Your task to perform on an android device: change keyboard looks Image 0: 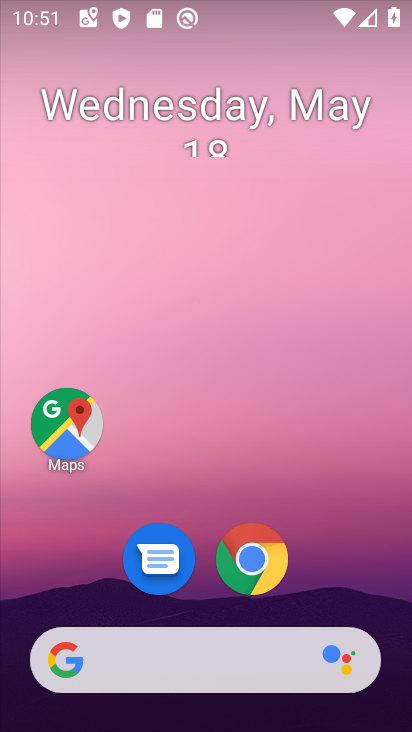
Step 0: drag from (200, 549) to (267, 85)
Your task to perform on an android device: change keyboard looks Image 1: 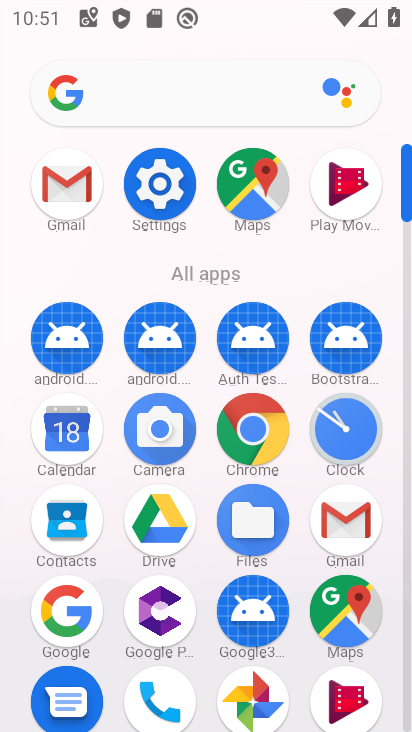
Step 1: click (157, 199)
Your task to perform on an android device: change keyboard looks Image 2: 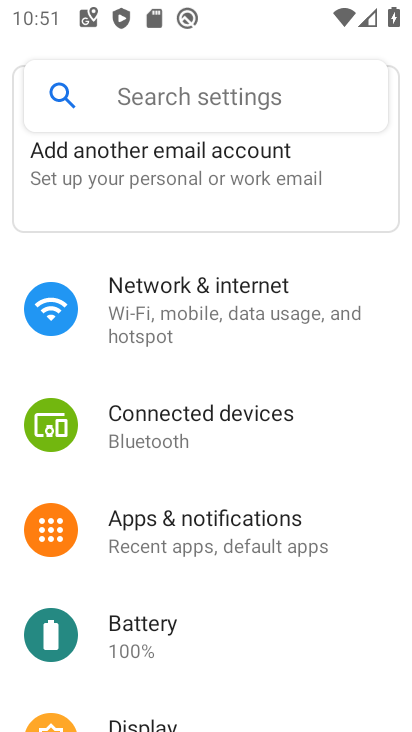
Step 2: drag from (219, 585) to (306, 180)
Your task to perform on an android device: change keyboard looks Image 3: 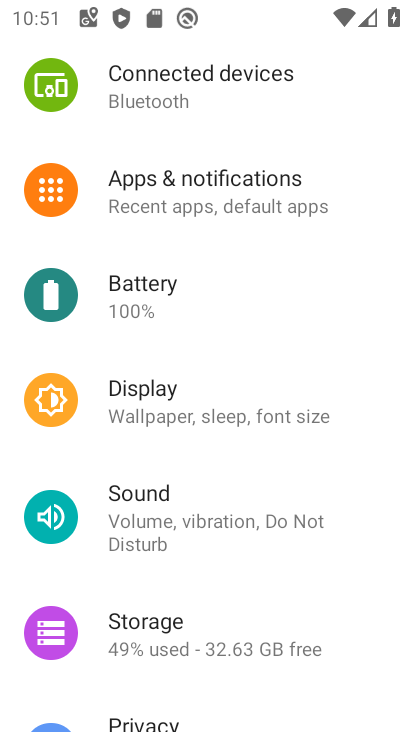
Step 3: drag from (204, 628) to (313, 80)
Your task to perform on an android device: change keyboard looks Image 4: 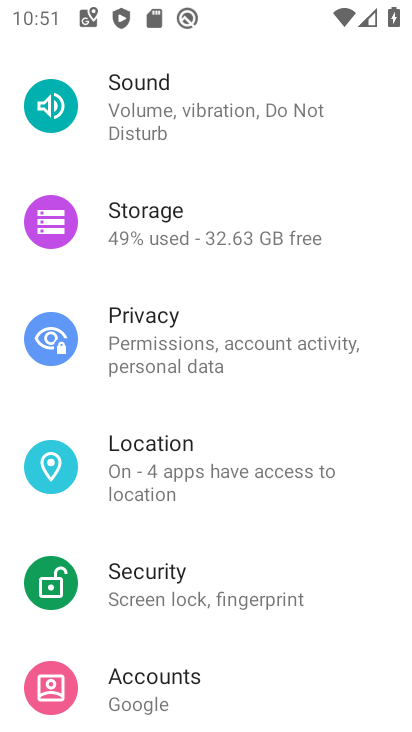
Step 4: drag from (191, 632) to (341, 5)
Your task to perform on an android device: change keyboard looks Image 5: 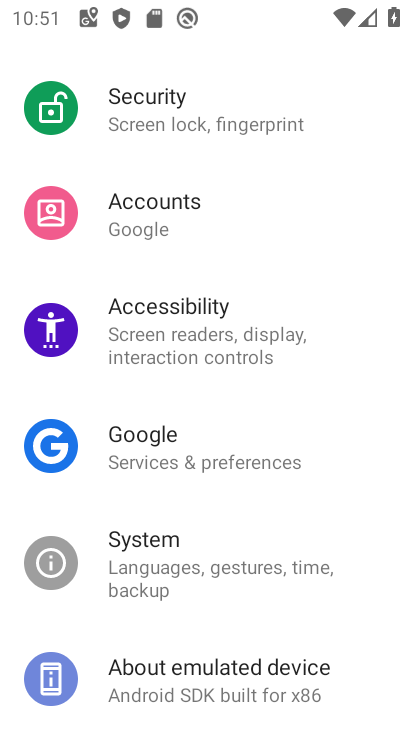
Step 5: click (173, 569)
Your task to perform on an android device: change keyboard looks Image 6: 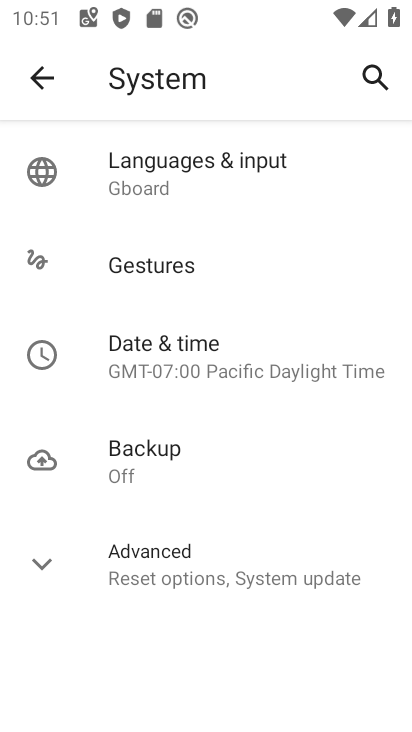
Step 6: click (136, 163)
Your task to perform on an android device: change keyboard looks Image 7: 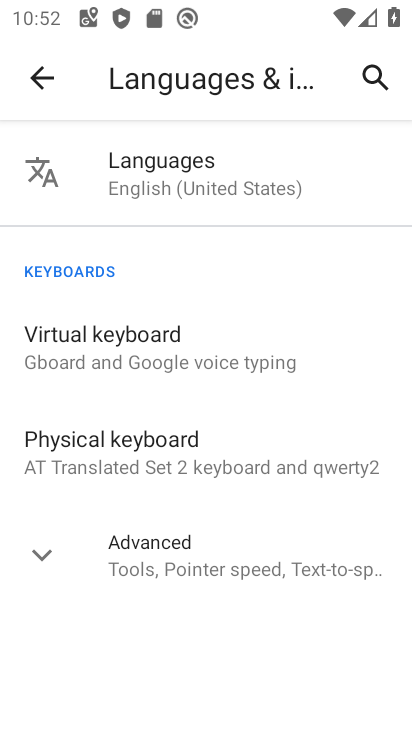
Step 7: click (188, 177)
Your task to perform on an android device: change keyboard looks Image 8: 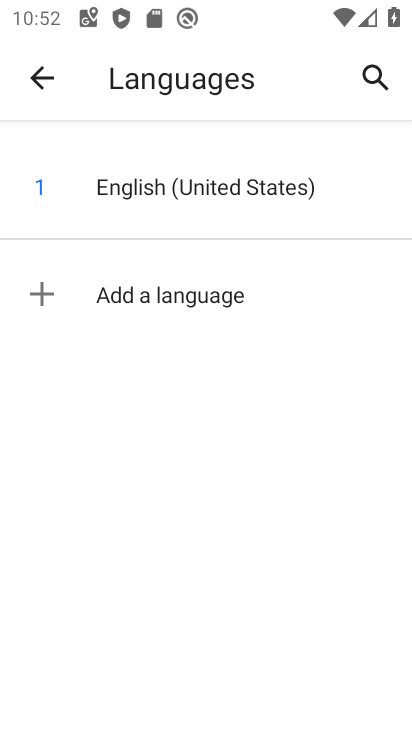
Step 8: click (49, 74)
Your task to perform on an android device: change keyboard looks Image 9: 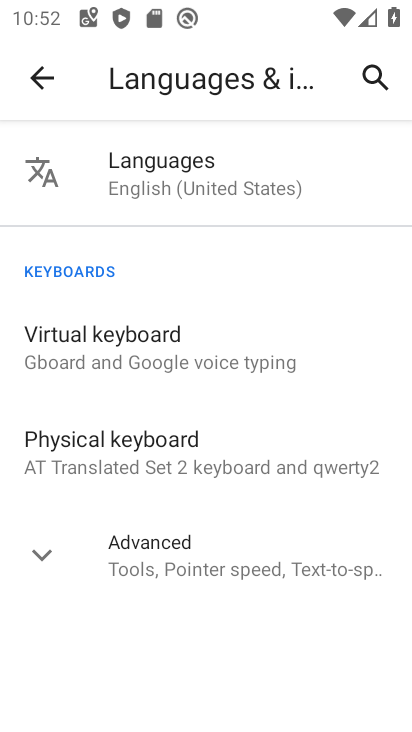
Step 9: click (147, 348)
Your task to perform on an android device: change keyboard looks Image 10: 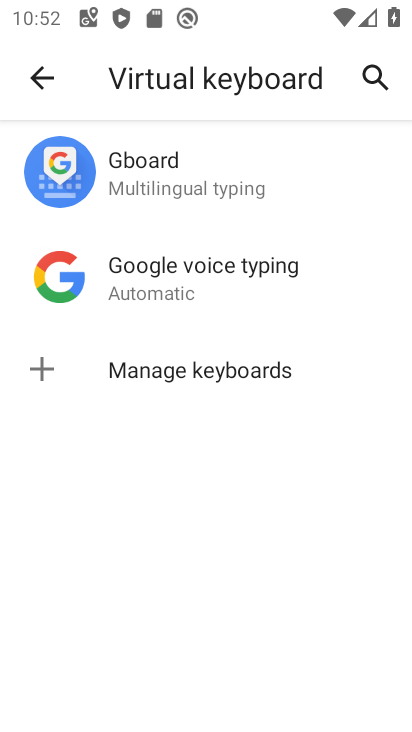
Step 10: click (150, 162)
Your task to perform on an android device: change keyboard looks Image 11: 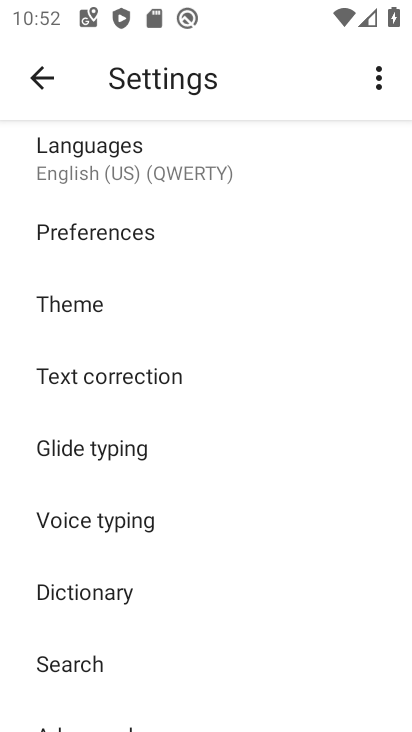
Step 11: click (110, 299)
Your task to perform on an android device: change keyboard looks Image 12: 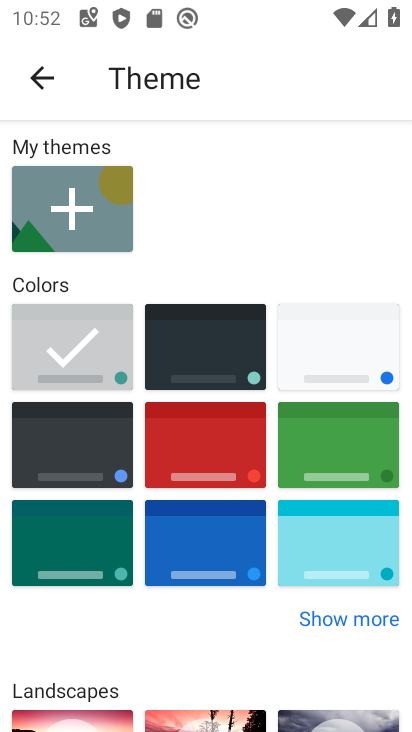
Step 12: click (194, 437)
Your task to perform on an android device: change keyboard looks Image 13: 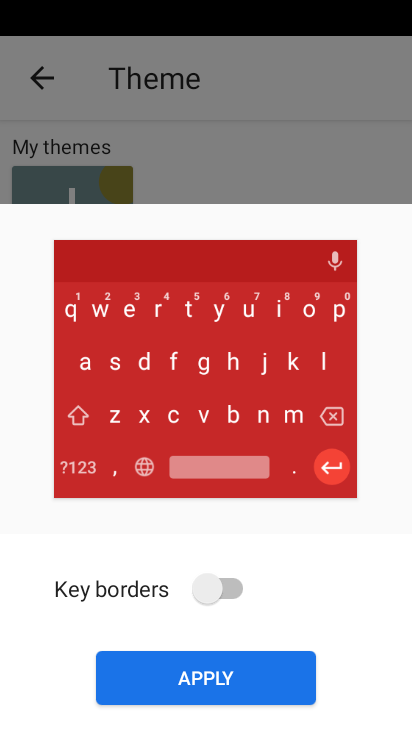
Step 13: click (214, 679)
Your task to perform on an android device: change keyboard looks Image 14: 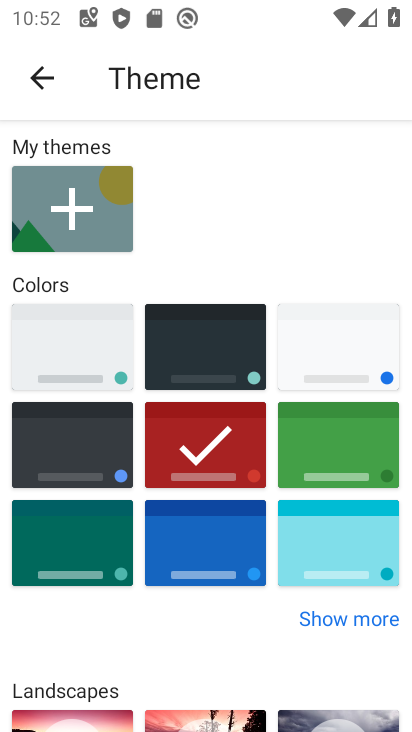
Step 14: task complete